Your task to perform on an android device: Open location settings Image 0: 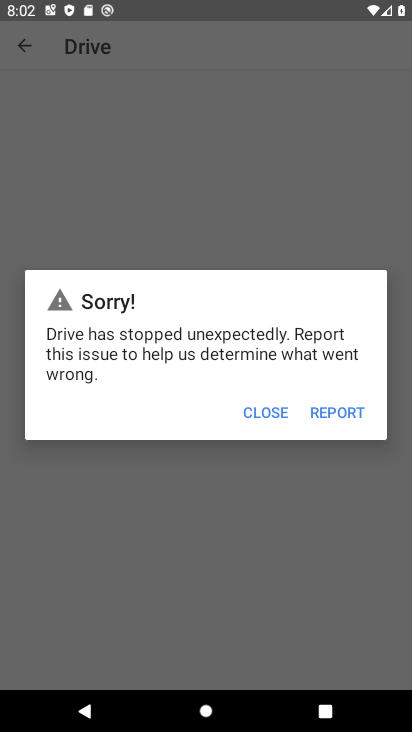
Step 0: press home button
Your task to perform on an android device: Open location settings Image 1: 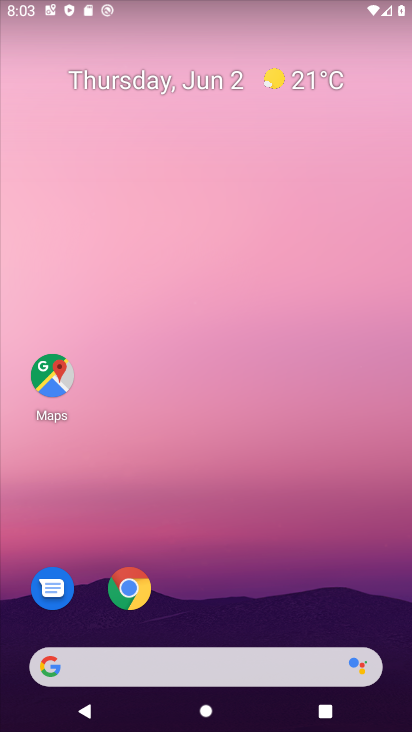
Step 1: drag from (243, 673) to (327, 327)
Your task to perform on an android device: Open location settings Image 2: 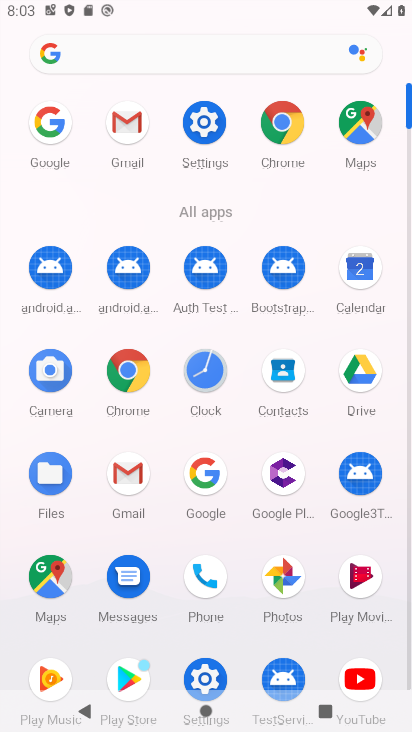
Step 2: click (203, 667)
Your task to perform on an android device: Open location settings Image 3: 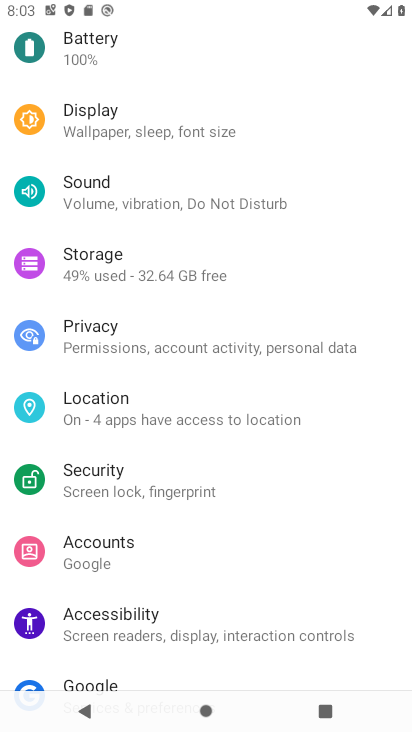
Step 3: click (128, 419)
Your task to perform on an android device: Open location settings Image 4: 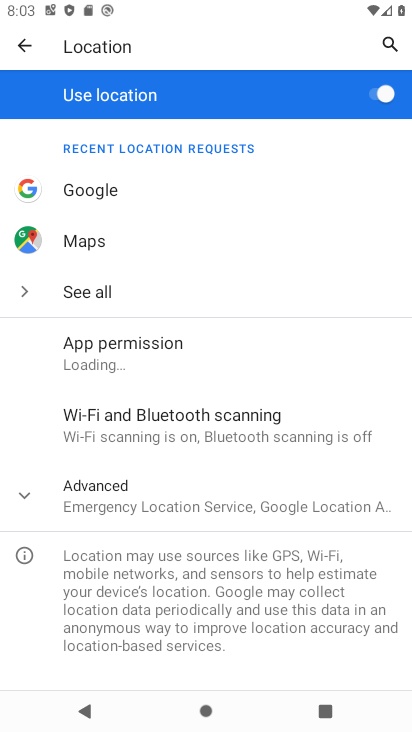
Step 4: task complete